Your task to perform on an android device: delete browsing data in the chrome app Image 0: 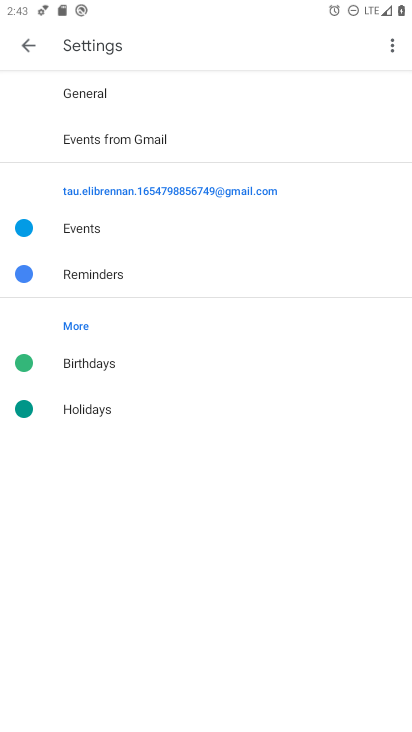
Step 0: press home button
Your task to perform on an android device: delete browsing data in the chrome app Image 1: 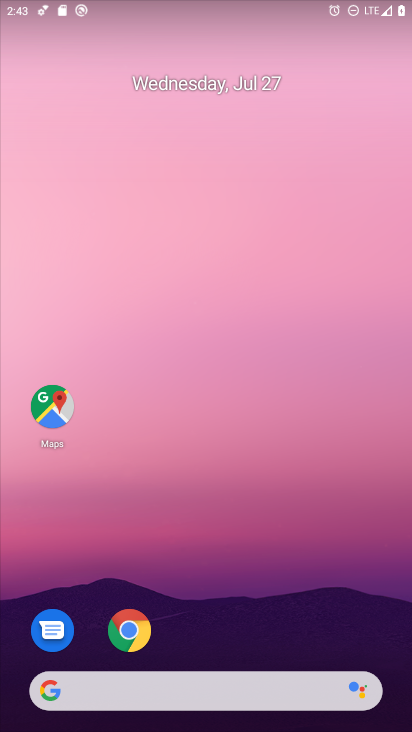
Step 1: click (130, 629)
Your task to perform on an android device: delete browsing data in the chrome app Image 2: 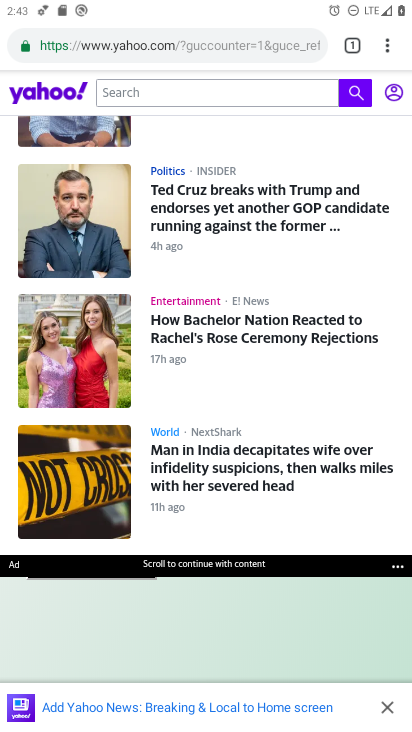
Step 2: click (388, 51)
Your task to perform on an android device: delete browsing data in the chrome app Image 3: 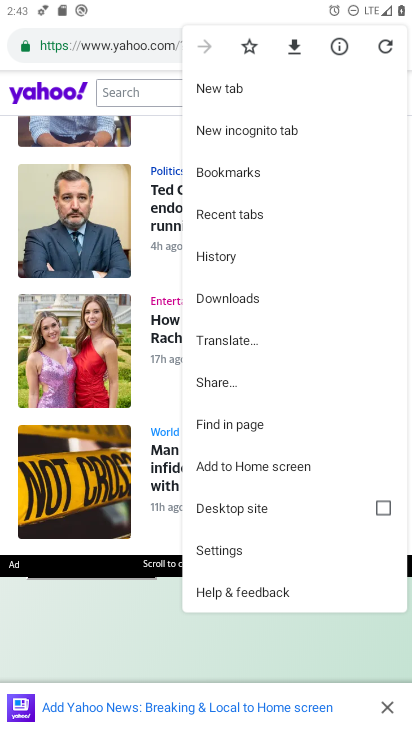
Step 3: click (212, 250)
Your task to perform on an android device: delete browsing data in the chrome app Image 4: 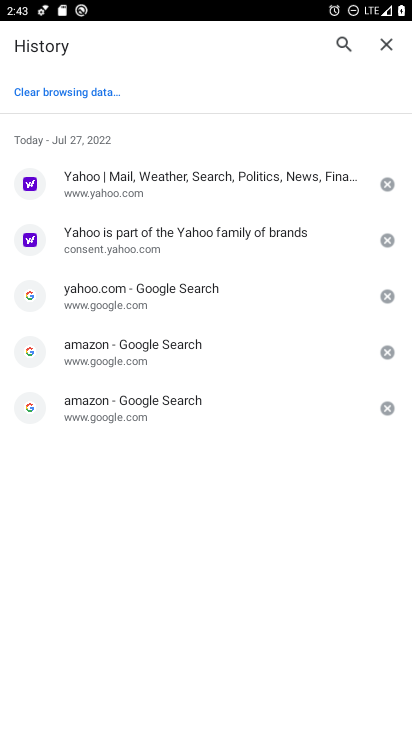
Step 4: click (75, 91)
Your task to perform on an android device: delete browsing data in the chrome app Image 5: 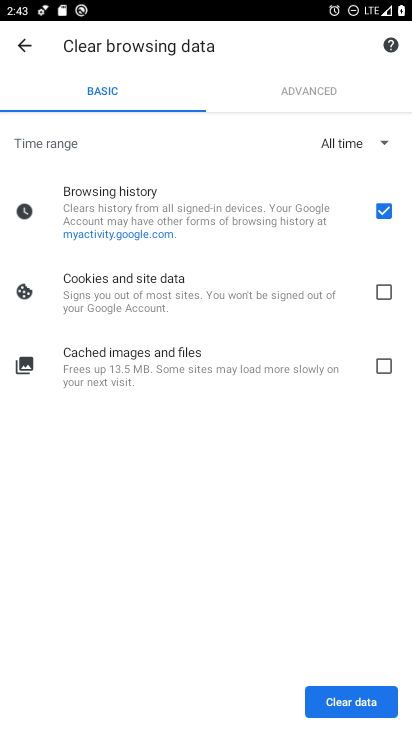
Step 5: click (346, 700)
Your task to perform on an android device: delete browsing data in the chrome app Image 6: 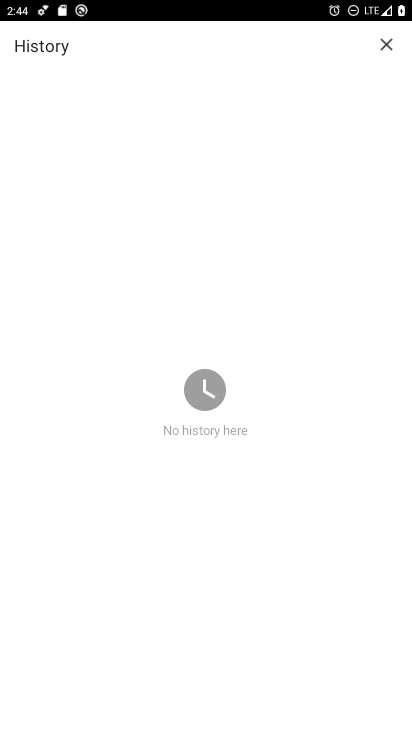
Step 6: task complete